Your task to perform on an android device: Go to privacy settings Image 0: 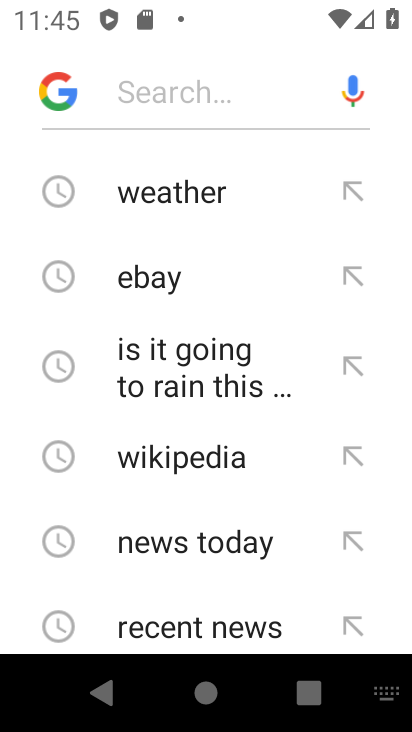
Step 0: press home button
Your task to perform on an android device: Go to privacy settings Image 1: 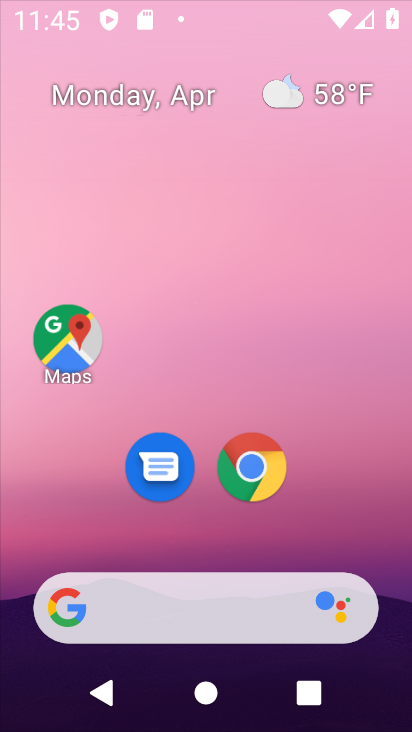
Step 1: drag from (286, 17) to (185, 352)
Your task to perform on an android device: Go to privacy settings Image 2: 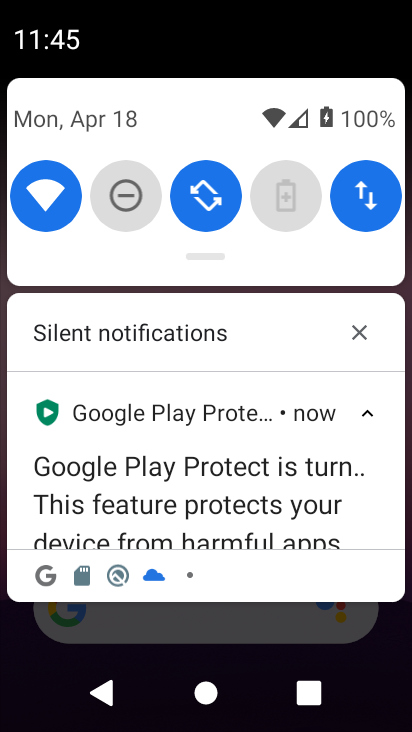
Step 2: drag from (195, 98) to (226, 384)
Your task to perform on an android device: Go to privacy settings Image 3: 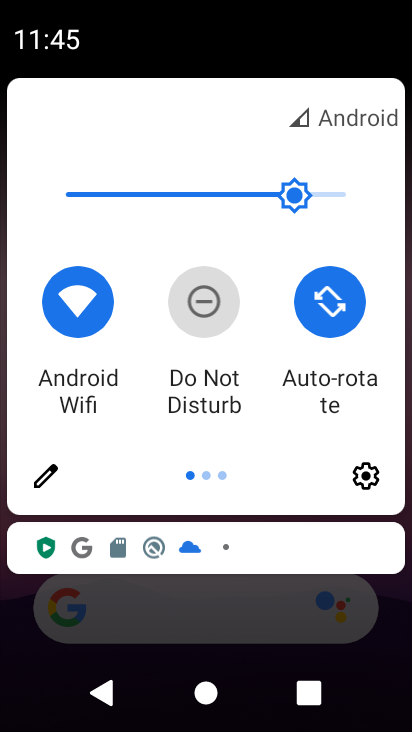
Step 3: click (382, 482)
Your task to perform on an android device: Go to privacy settings Image 4: 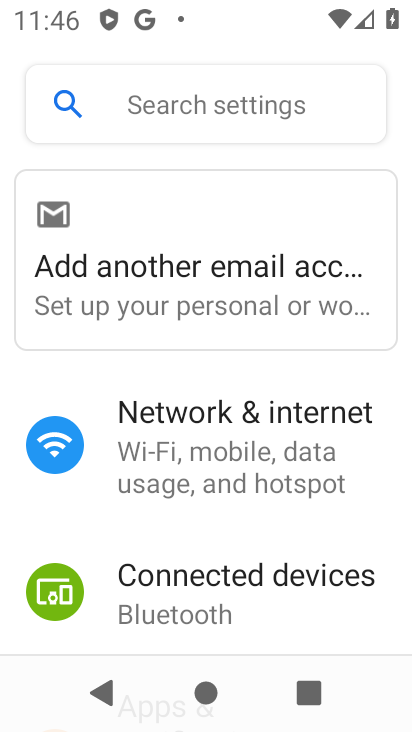
Step 4: drag from (119, 608) to (157, 17)
Your task to perform on an android device: Go to privacy settings Image 5: 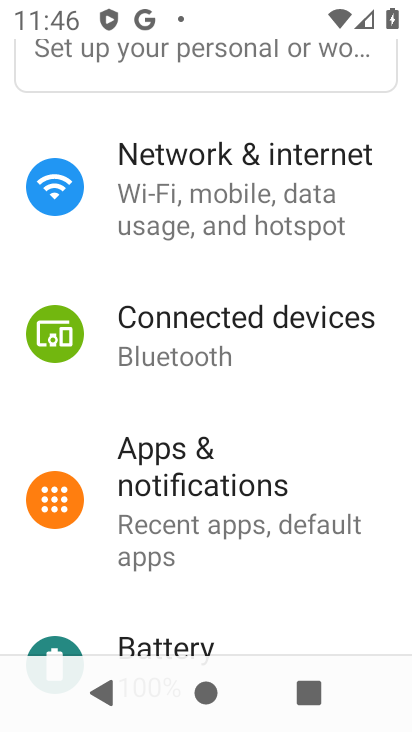
Step 5: drag from (134, 532) to (124, 72)
Your task to perform on an android device: Go to privacy settings Image 6: 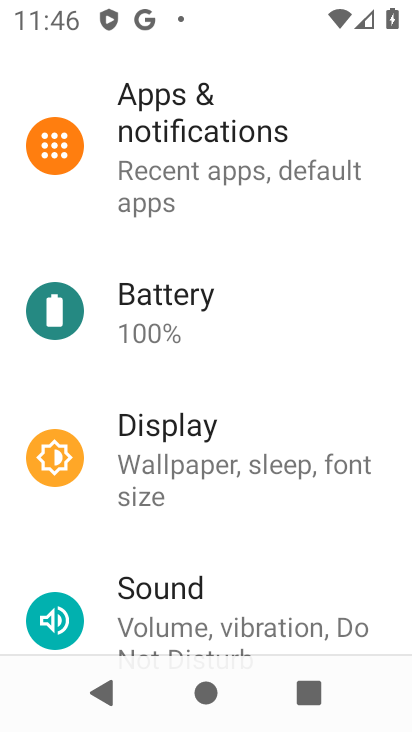
Step 6: click (192, 69)
Your task to perform on an android device: Go to privacy settings Image 7: 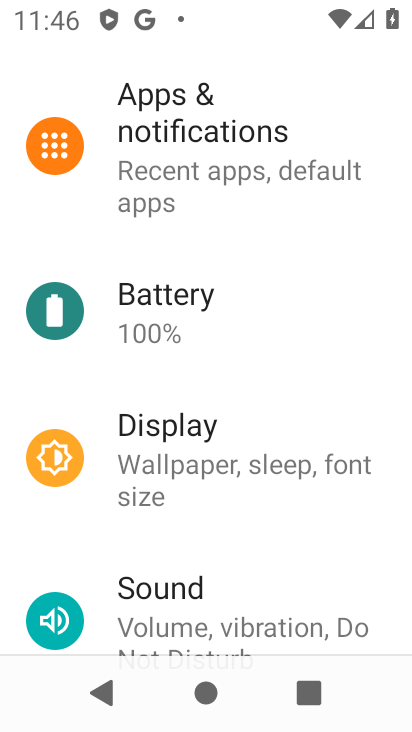
Step 7: drag from (118, 575) to (153, 29)
Your task to perform on an android device: Go to privacy settings Image 8: 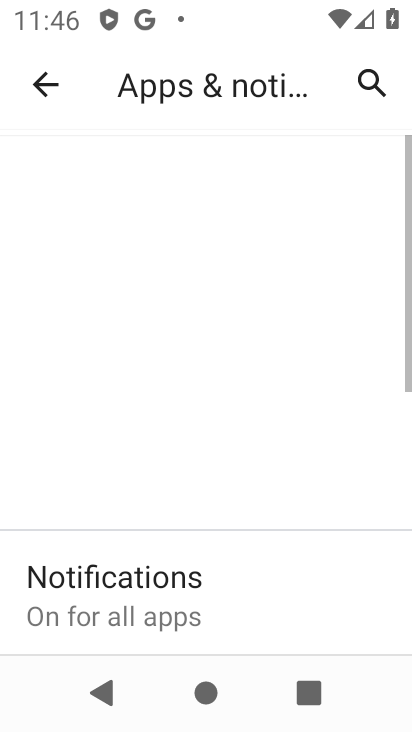
Step 8: drag from (156, 650) to (165, 266)
Your task to perform on an android device: Go to privacy settings Image 9: 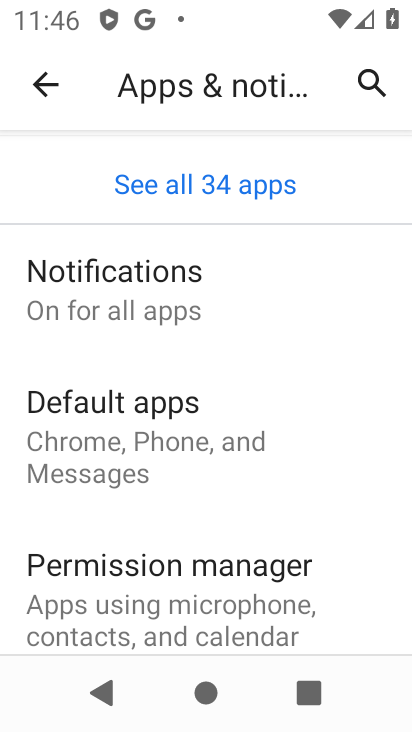
Step 9: click (49, 88)
Your task to perform on an android device: Go to privacy settings Image 10: 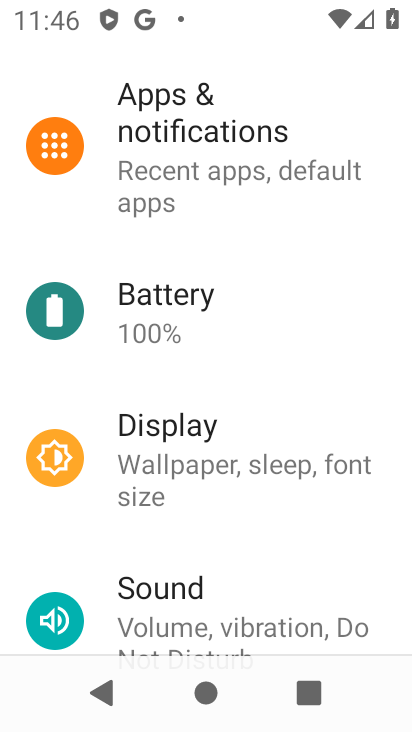
Step 10: drag from (211, 590) to (217, 109)
Your task to perform on an android device: Go to privacy settings Image 11: 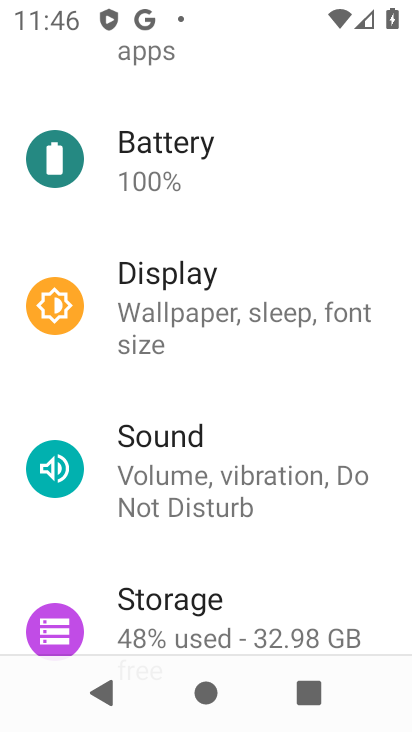
Step 11: drag from (187, 620) to (215, 89)
Your task to perform on an android device: Go to privacy settings Image 12: 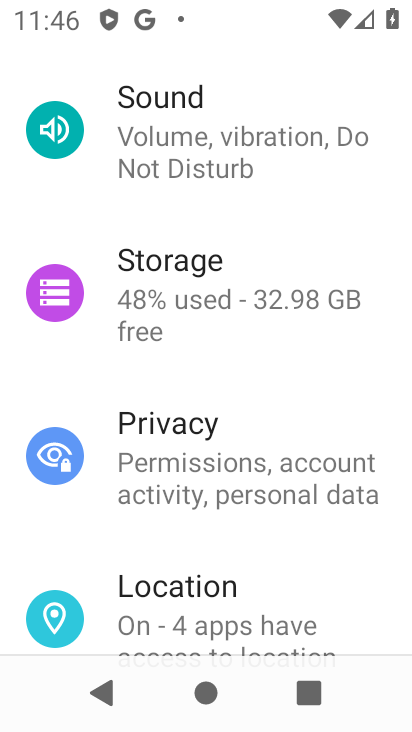
Step 12: click (141, 456)
Your task to perform on an android device: Go to privacy settings Image 13: 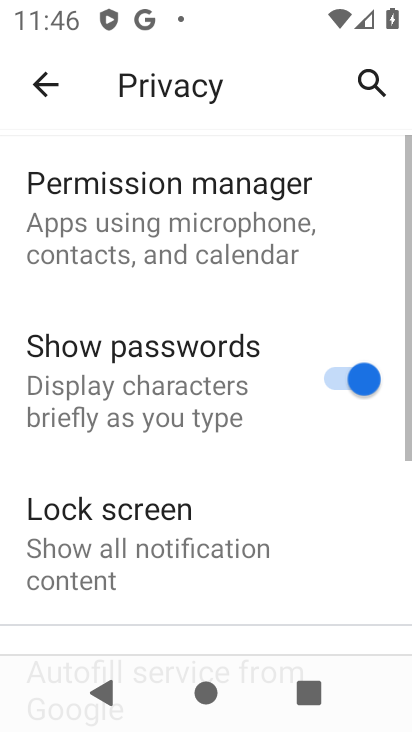
Step 13: task complete